Your task to perform on an android device: Open privacy settings Image 0: 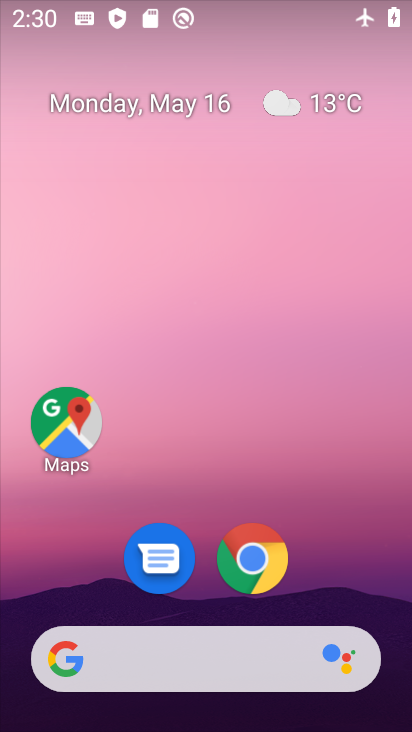
Step 0: drag from (180, 609) to (169, 46)
Your task to perform on an android device: Open privacy settings Image 1: 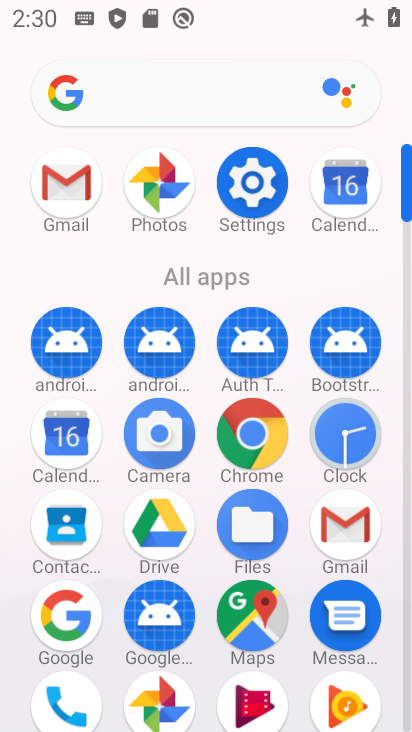
Step 1: click (255, 183)
Your task to perform on an android device: Open privacy settings Image 2: 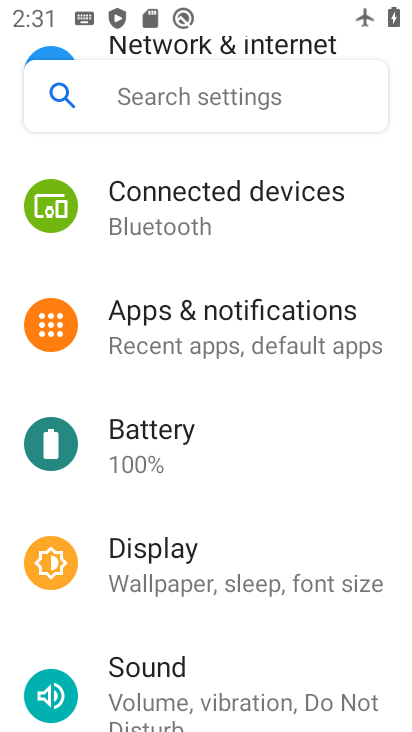
Step 2: drag from (224, 566) to (173, 54)
Your task to perform on an android device: Open privacy settings Image 3: 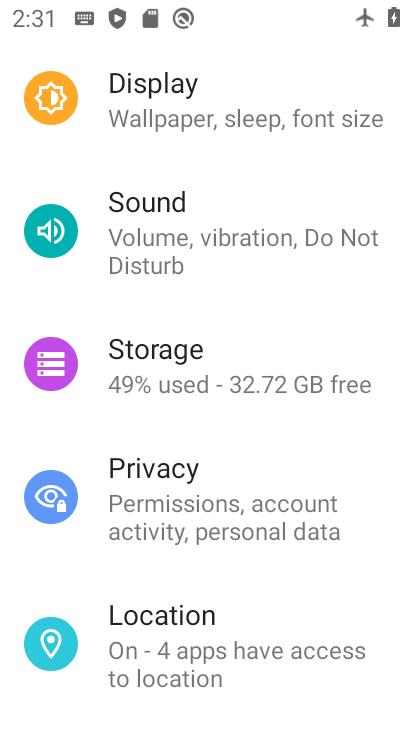
Step 3: click (167, 503)
Your task to perform on an android device: Open privacy settings Image 4: 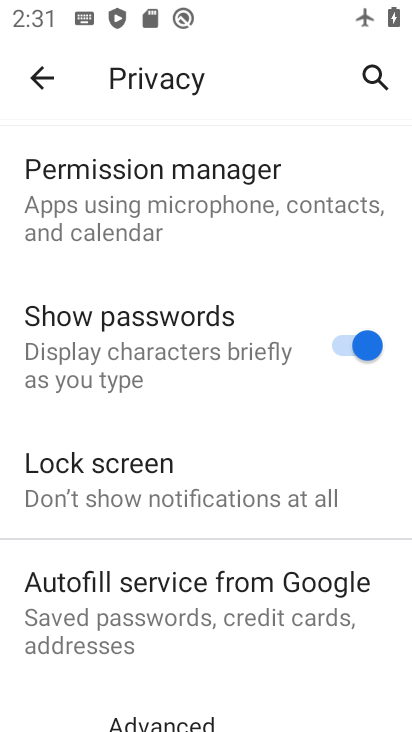
Step 4: task complete